Your task to perform on an android device: empty trash in the gmail app Image 0: 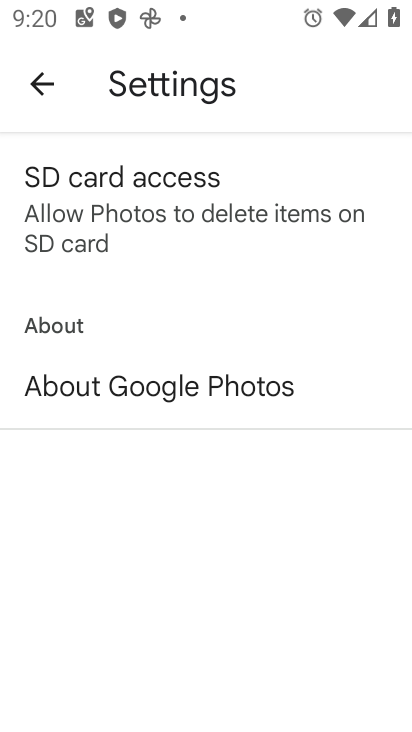
Step 0: press home button
Your task to perform on an android device: empty trash in the gmail app Image 1: 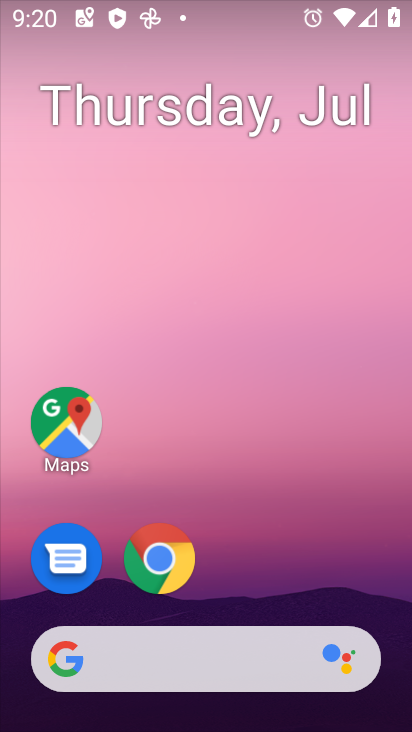
Step 1: drag from (364, 558) to (340, 90)
Your task to perform on an android device: empty trash in the gmail app Image 2: 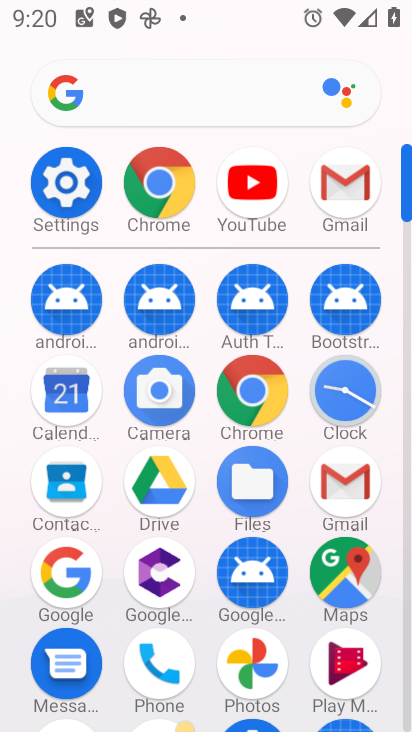
Step 2: click (361, 484)
Your task to perform on an android device: empty trash in the gmail app Image 3: 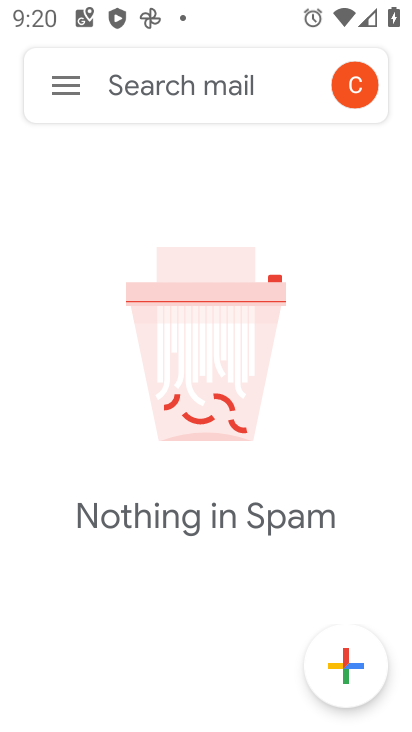
Step 3: click (72, 89)
Your task to perform on an android device: empty trash in the gmail app Image 4: 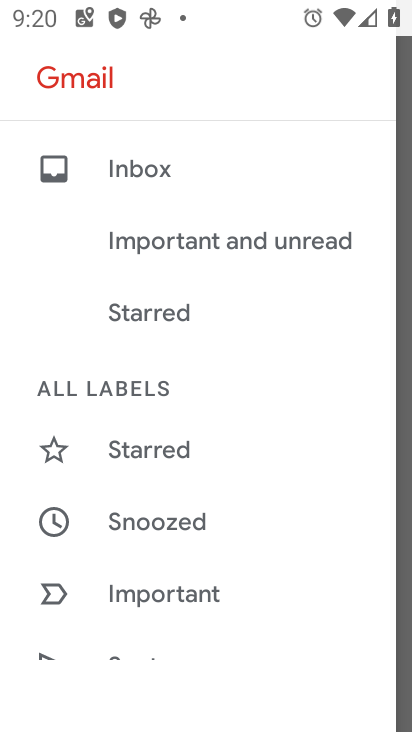
Step 4: drag from (323, 485) to (311, 386)
Your task to perform on an android device: empty trash in the gmail app Image 5: 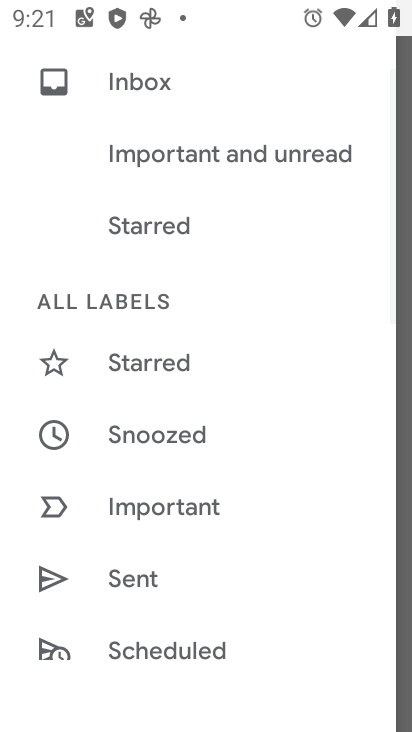
Step 5: drag from (303, 490) to (293, 416)
Your task to perform on an android device: empty trash in the gmail app Image 6: 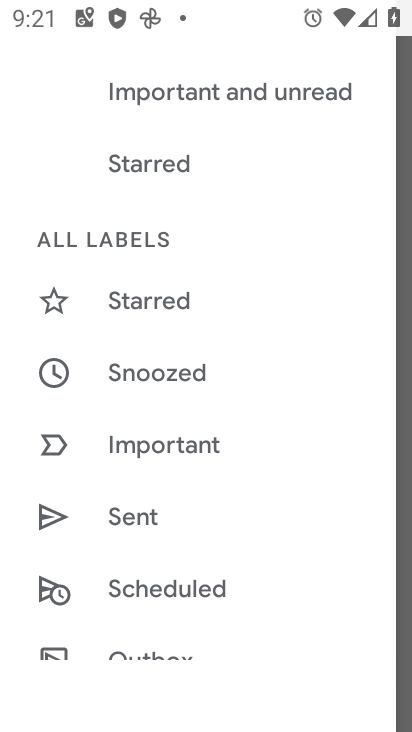
Step 6: drag from (300, 491) to (294, 407)
Your task to perform on an android device: empty trash in the gmail app Image 7: 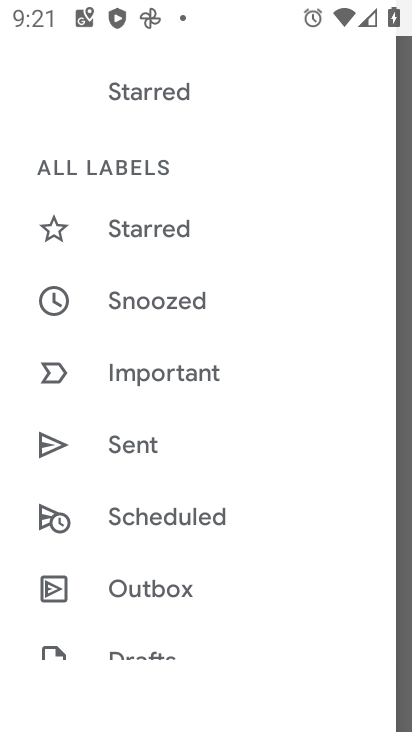
Step 7: drag from (288, 475) to (288, 396)
Your task to perform on an android device: empty trash in the gmail app Image 8: 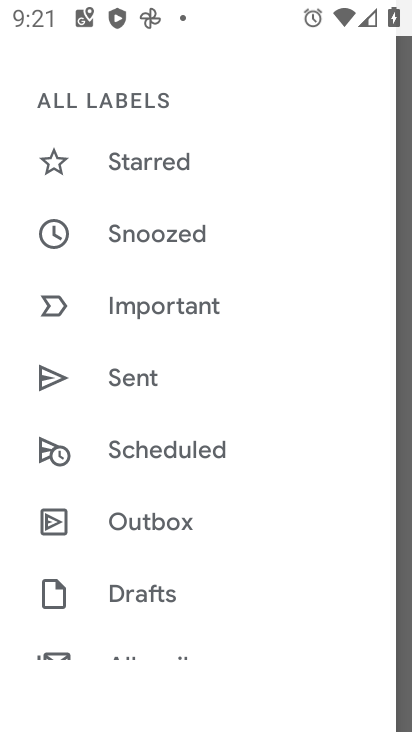
Step 8: drag from (312, 487) to (318, 399)
Your task to perform on an android device: empty trash in the gmail app Image 9: 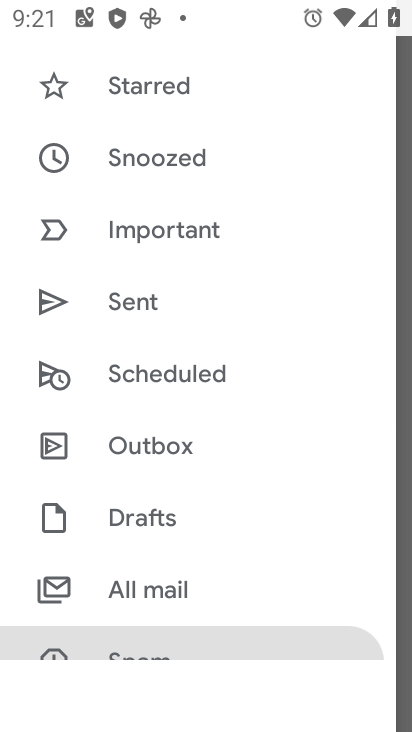
Step 9: drag from (317, 499) to (315, 405)
Your task to perform on an android device: empty trash in the gmail app Image 10: 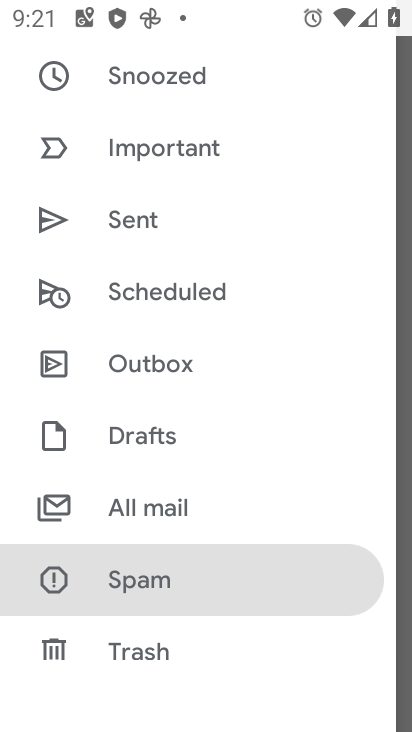
Step 10: drag from (320, 524) to (324, 425)
Your task to perform on an android device: empty trash in the gmail app Image 11: 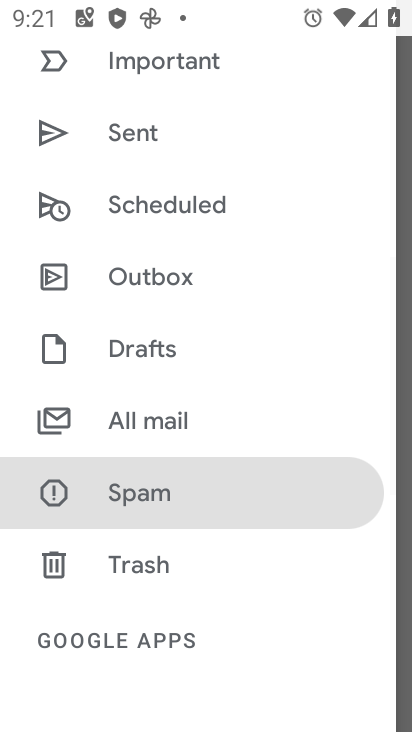
Step 11: drag from (325, 564) to (325, 460)
Your task to perform on an android device: empty trash in the gmail app Image 12: 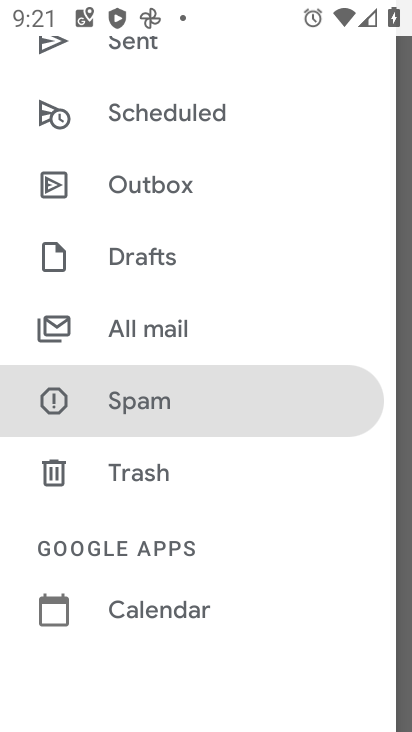
Step 12: click (233, 479)
Your task to perform on an android device: empty trash in the gmail app Image 13: 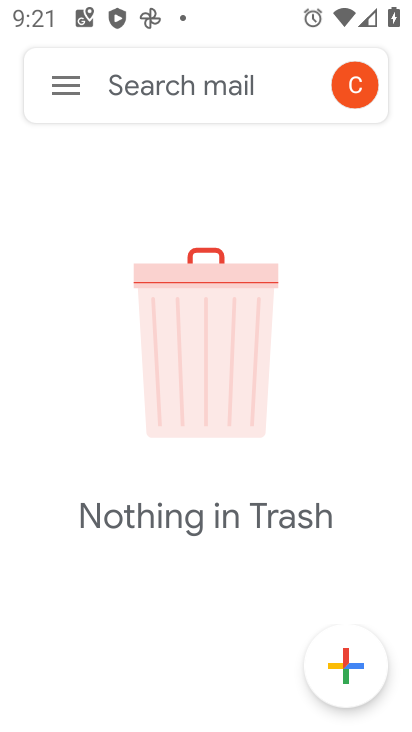
Step 13: task complete